Your task to perform on an android device: turn on sleep mode Image 0: 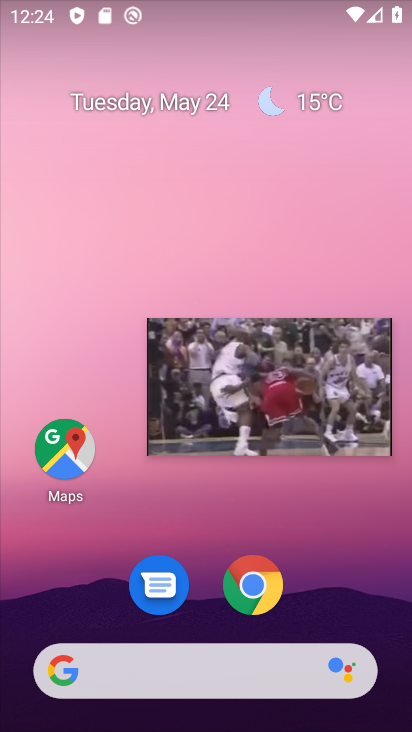
Step 0: drag from (81, 385) to (108, 32)
Your task to perform on an android device: turn on sleep mode Image 1: 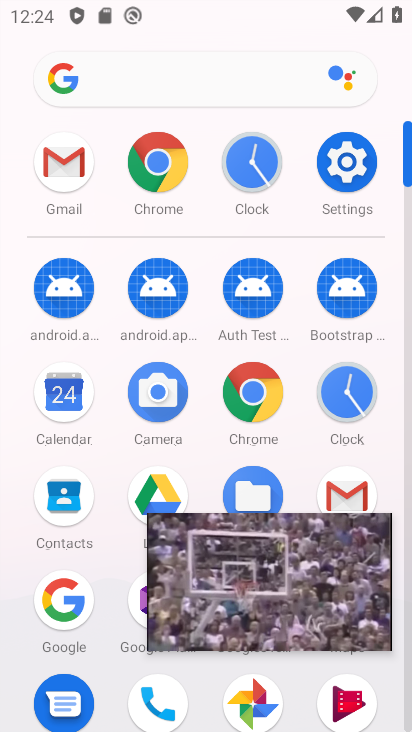
Step 1: click (353, 158)
Your task to perform on an android device: turn on sleep mode Image 2: 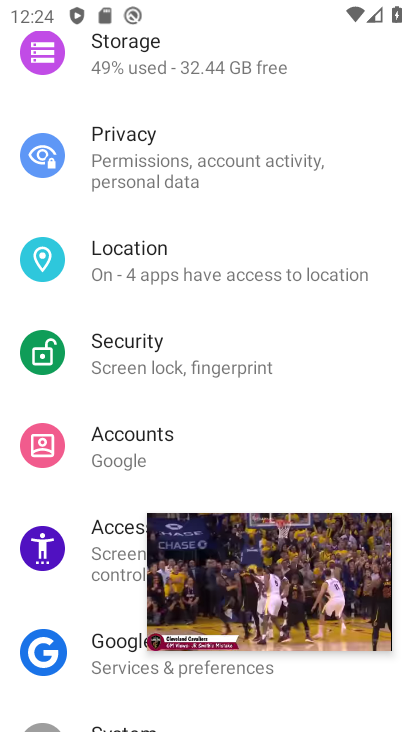
Step 2: drag from (252, 212) to (251, 442)
Your task to perform on an android device: turn on sleep mode Image 3: 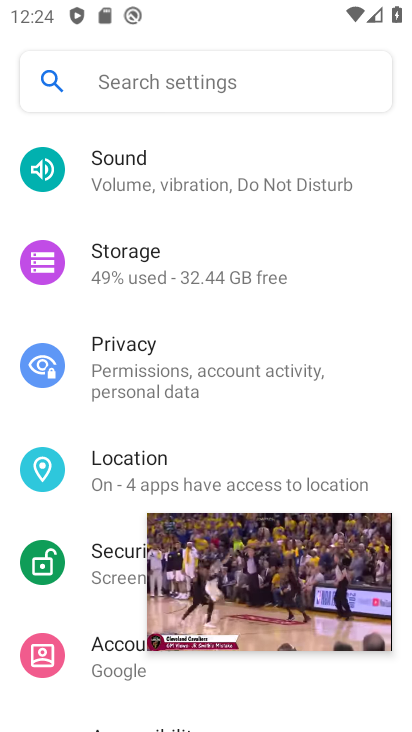
Step 3: drag from (249, 250) to (259, 405)
Your task to perform on an android device: turn on sleep mode Image 4: 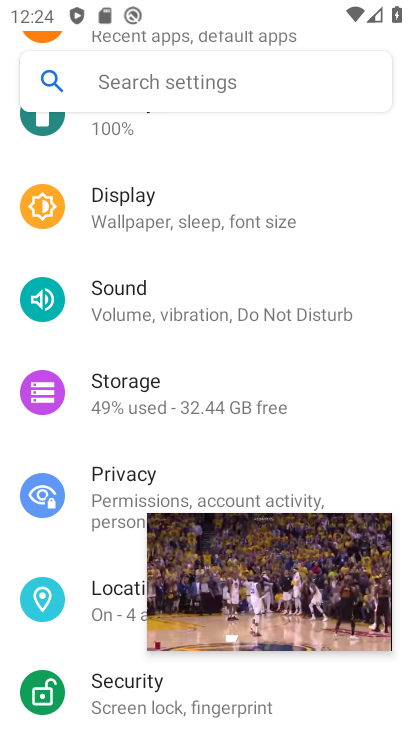
Step 4: click (236, 219)
Your task to perform on an android device: turn on sleep mode Image 5: 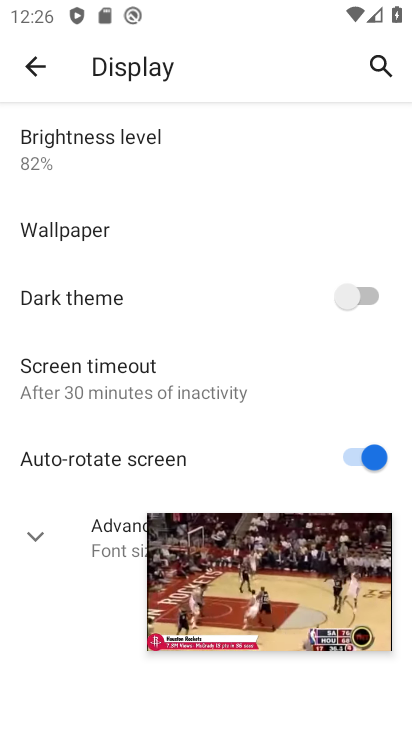
Step 5: task complete